Your task to perform on an android device: Go to network settings Image 0: 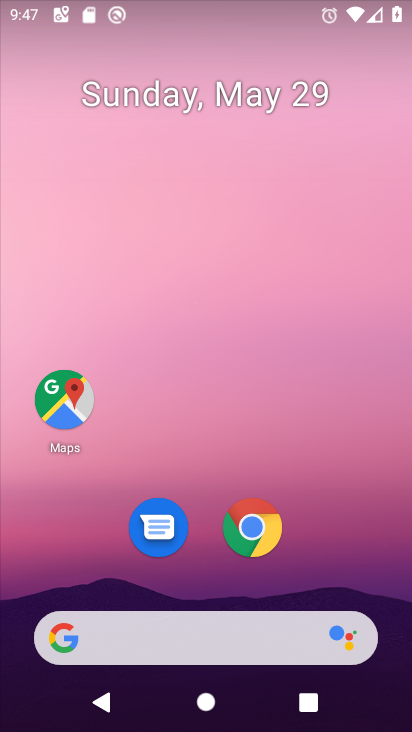
Step 0: drag from (206, 576) to (209, 137)
Your task to perform on an android device: Go to network settings Image 1: 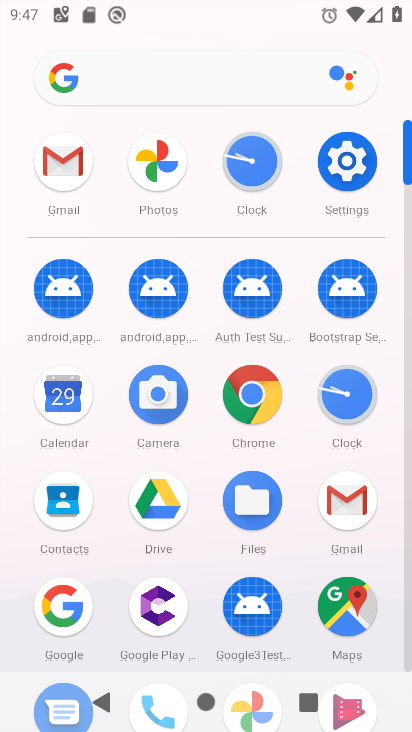
Step 1: click (350, 148)
Your task to perform on an android device: Go to network settings Image 2: 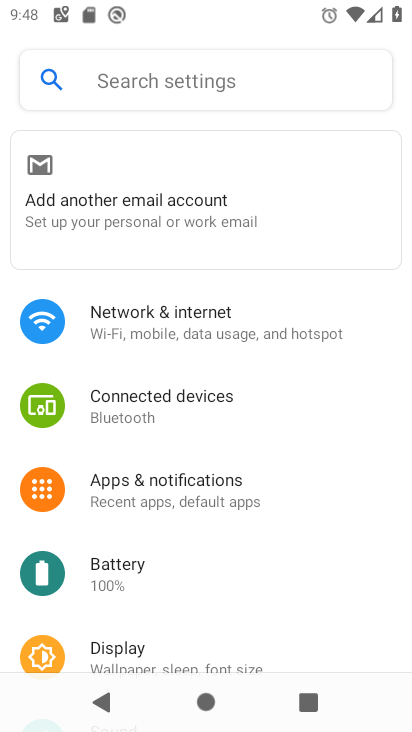
Step 2: click (223, 320)
Your task to perform on an android device: Go to network settings Image 3: 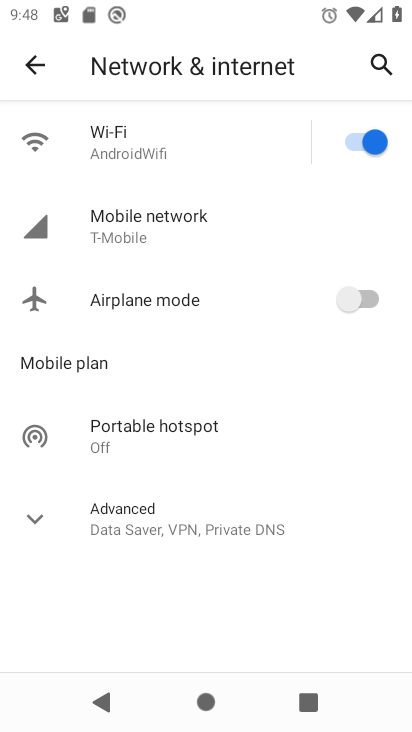
Step 3: click (59, 521)
Your task to perform on an android device: Go to network settings Image 4: 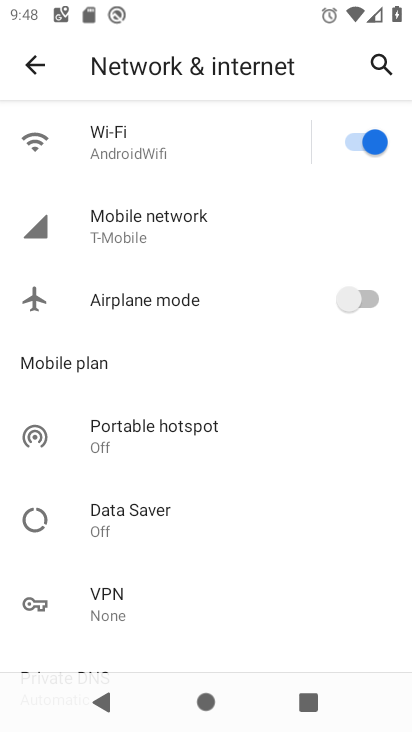
Step 4: task complete